Your task to perform on an android device: check data usage Image 0: 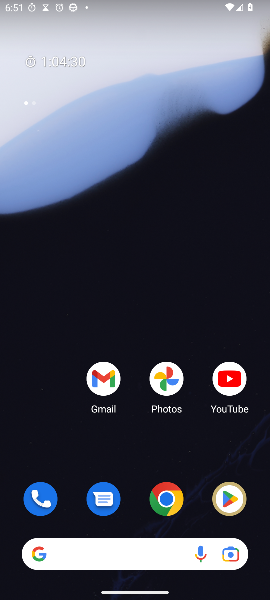
Step 0: drag from (148, 202) to (265, 277)
Your task to perform on an android device: check data usage Image 1: 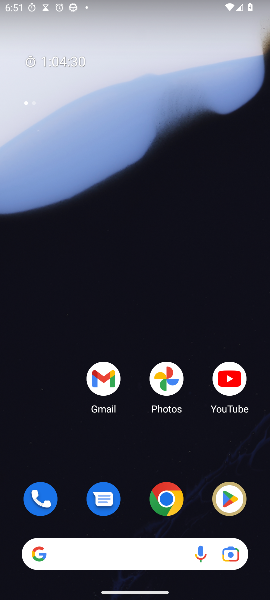
Step 1: drag from (110, 487) to (147, 0)
Your task to perform on an android device: check data usage Image 2: 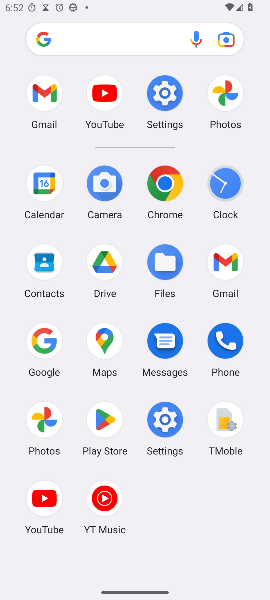
Step 2: click (161, 105)
Your task to perform on an android device: check data usage Image 3: 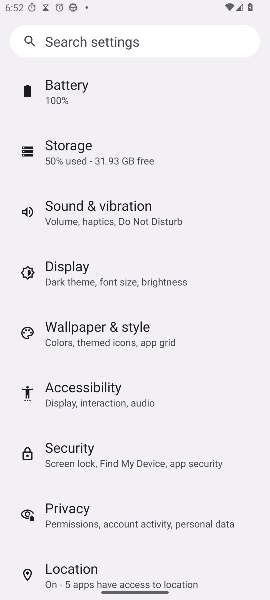
Step 3: drag from (118, 232) to (121, 543)
Your task to perform on an android device: check data usage Image 4: 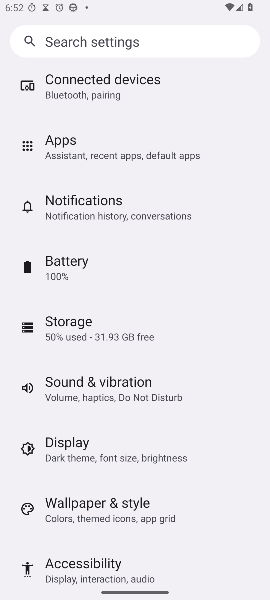
Step 4: drag from (77, 115) to (110, 537)
Your task to perform on an android device: check data usage Image 5: 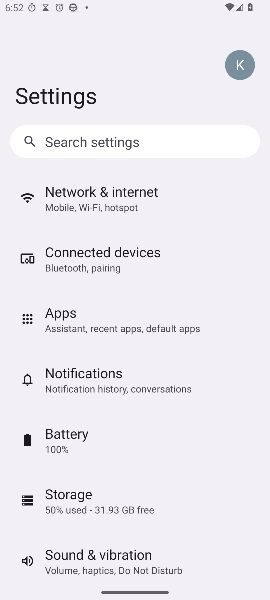
Step 5: click (67, 209)
Your task to perform on an android device: check data usage Image 6: 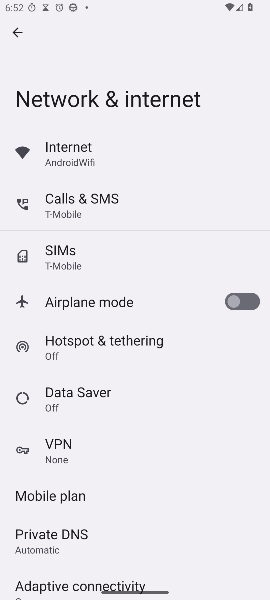
Step 6: task complete